Your task to perform on an android device: change notifications settings Image 0: 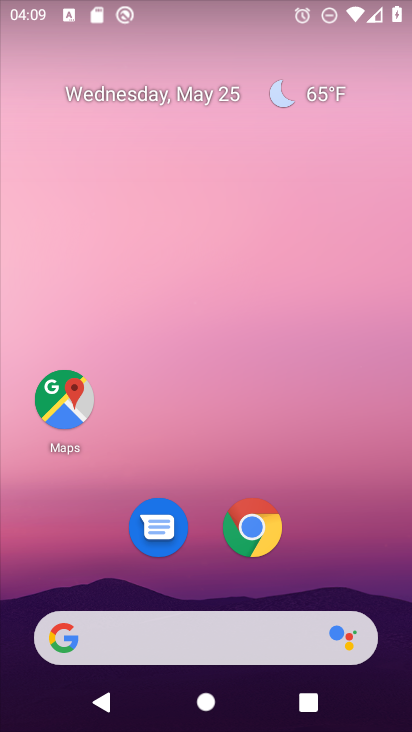
Step 0: drag from (315, 632) to (353, 195)
Your task to perform on an android device: change notifications settings Image 1: 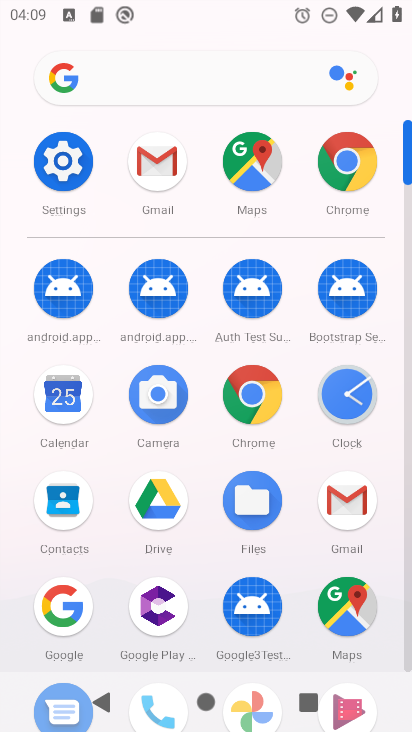
Step 1: click (64, 167)
Your task to perform on an android device: change notifications settings Image 2: 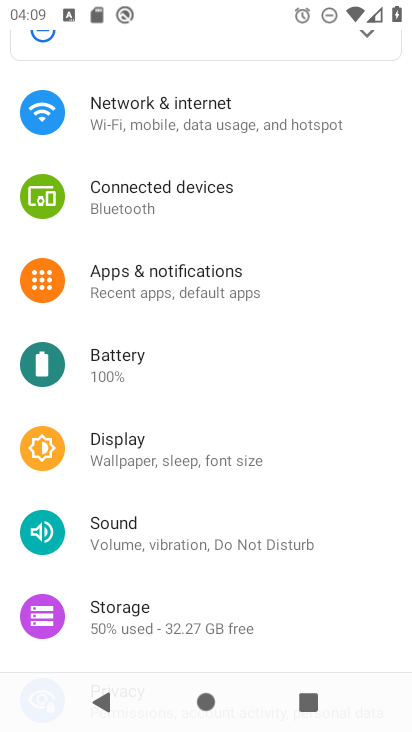
Step 2: click (214, 270)
Your task to perform on an android device: change notifications settings Image 3: 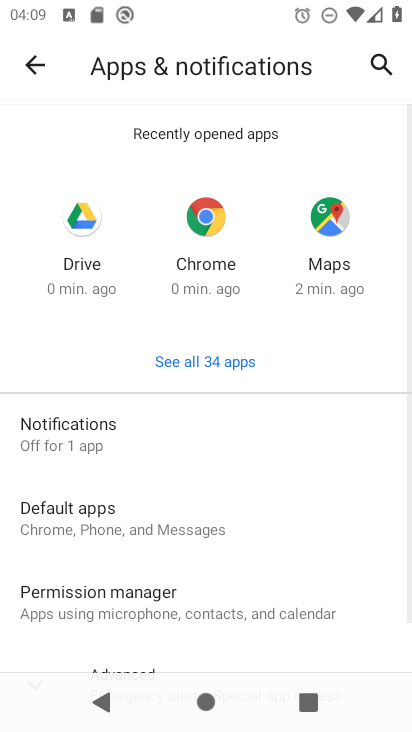
Step 3: task complete